Your task to perform on an android device: toggle notification dots Image 0: 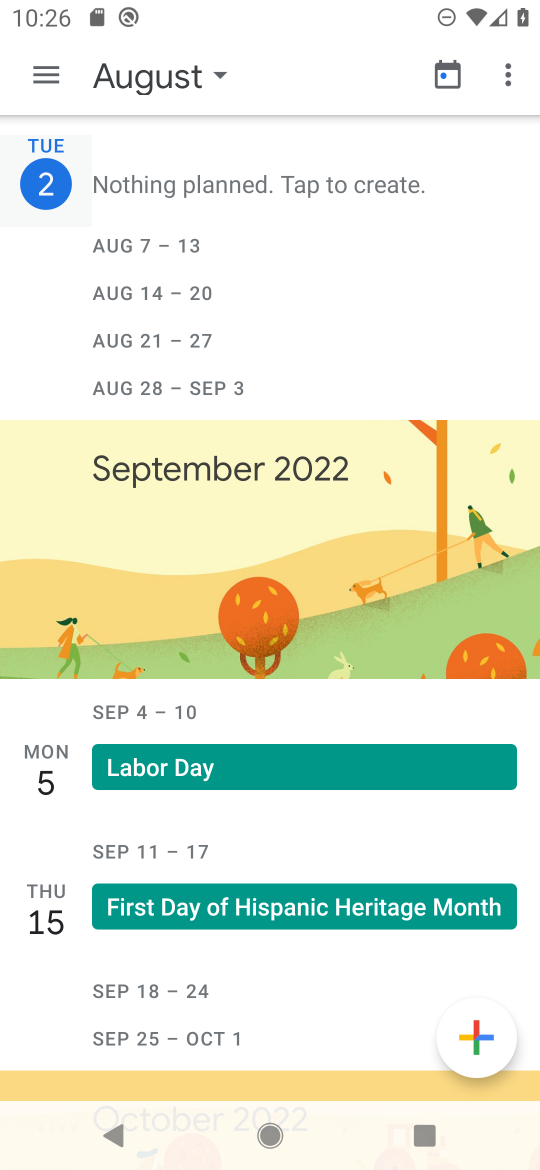
Step 0: press home button
Your task to perform on an android device: toggle notification dots Image 1: 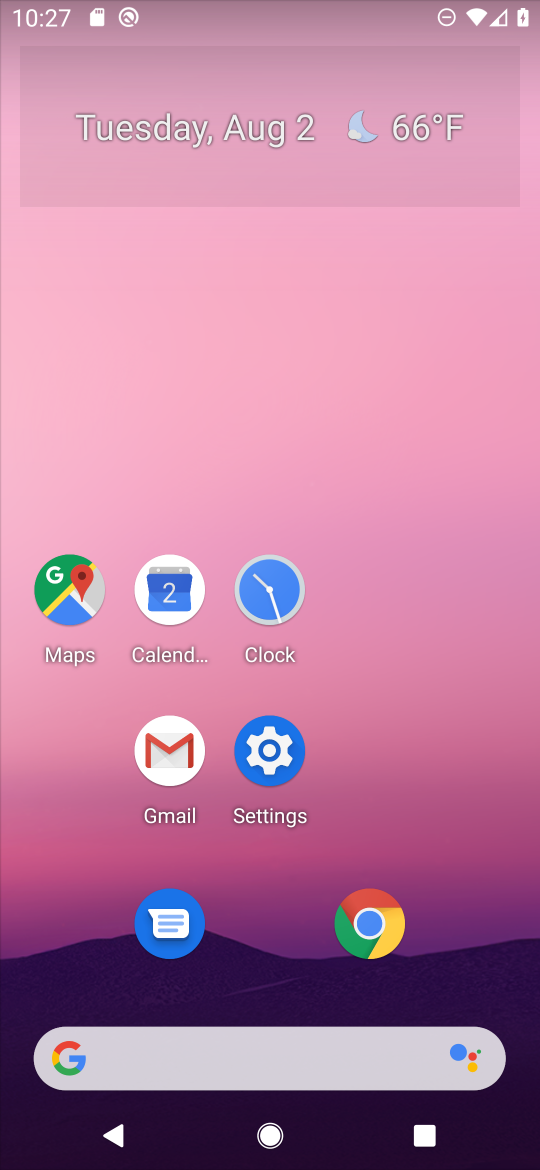
Step 1: click (273, 740)
Your task to perform on an android device: toggle notification dots Image 2: 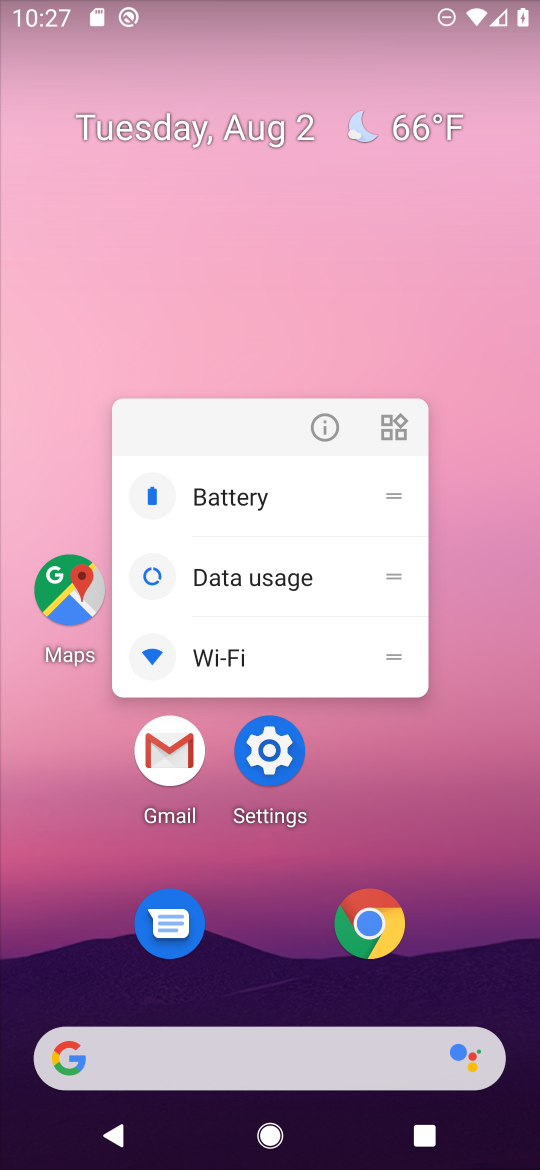
Step 2: click (273, 740)
Your task to perform on an android device: toggle notification dots Image 3: 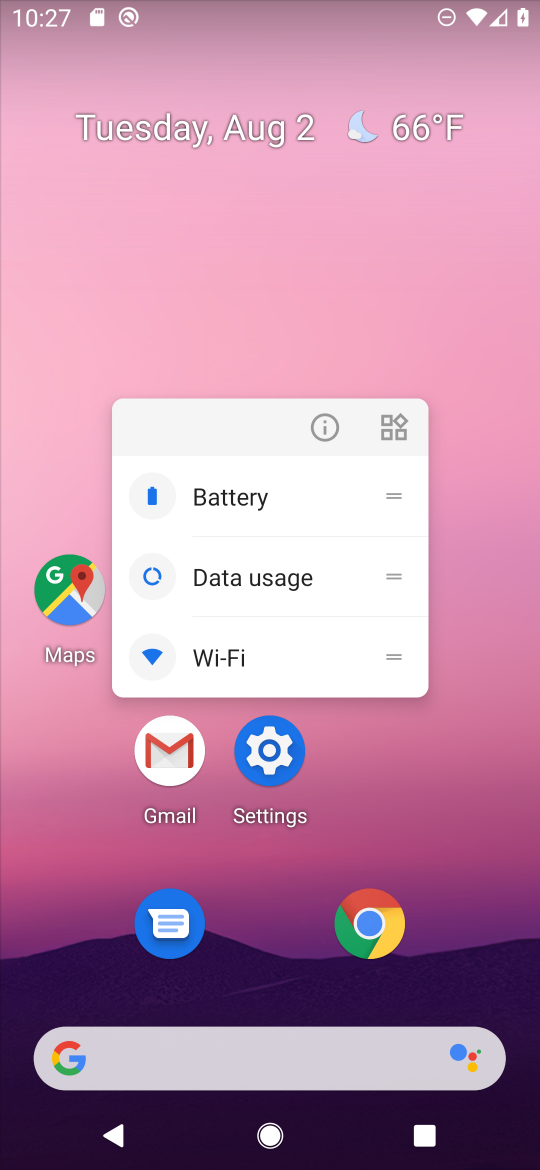
Step 3: click (273, 740)
Your task to perform on an android device: toggle notification dots Image 4: 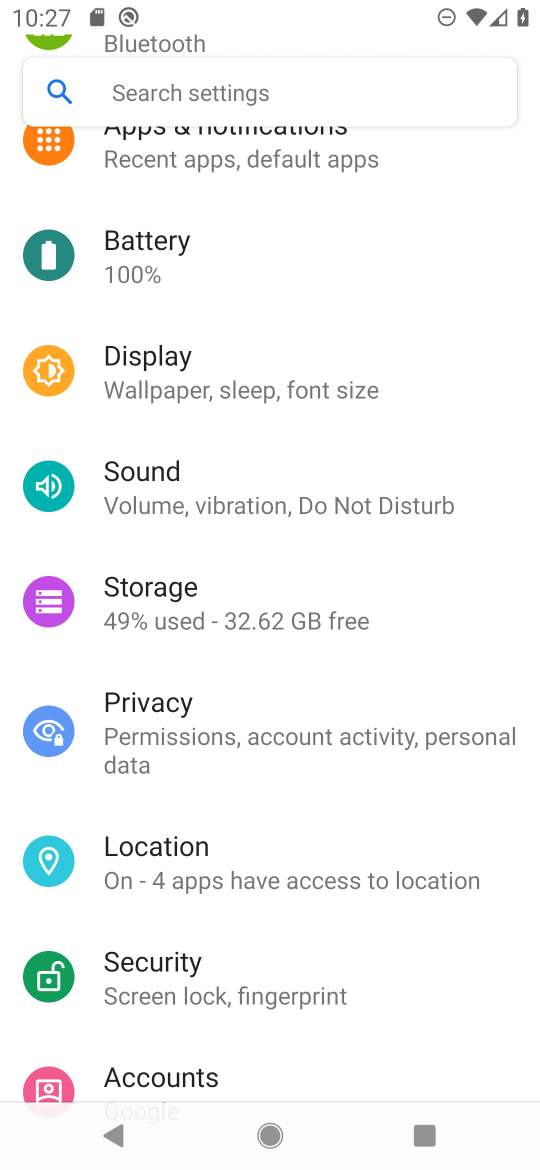
Step 4: click (283, 153)
Your task to perform on an android device: toggle notification dots Image 5: 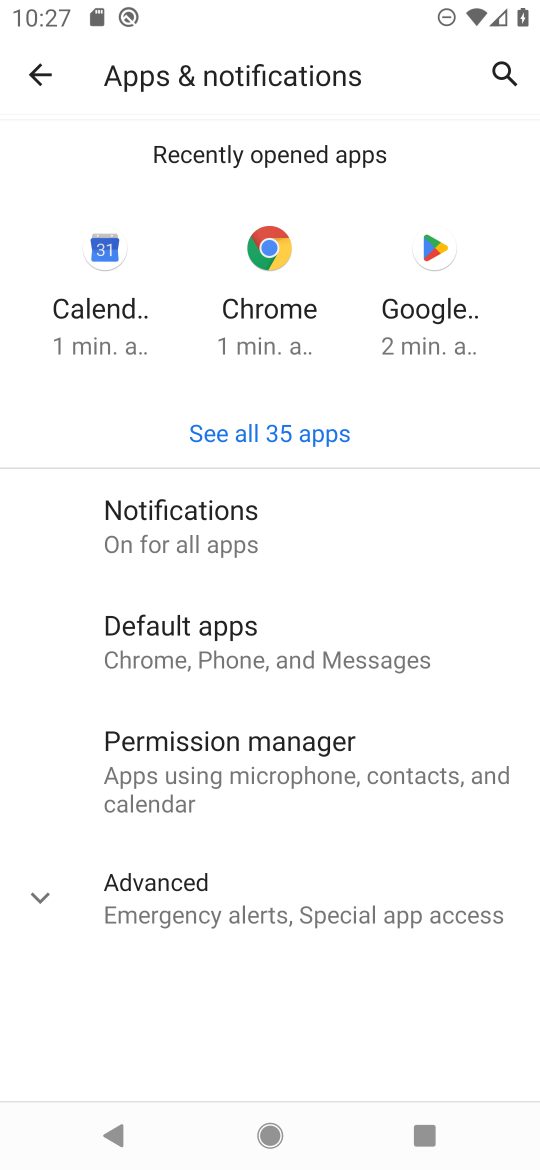
Step 5: click (174, 512)
Your task to perform on an android device: toggle notification dots Image 6: 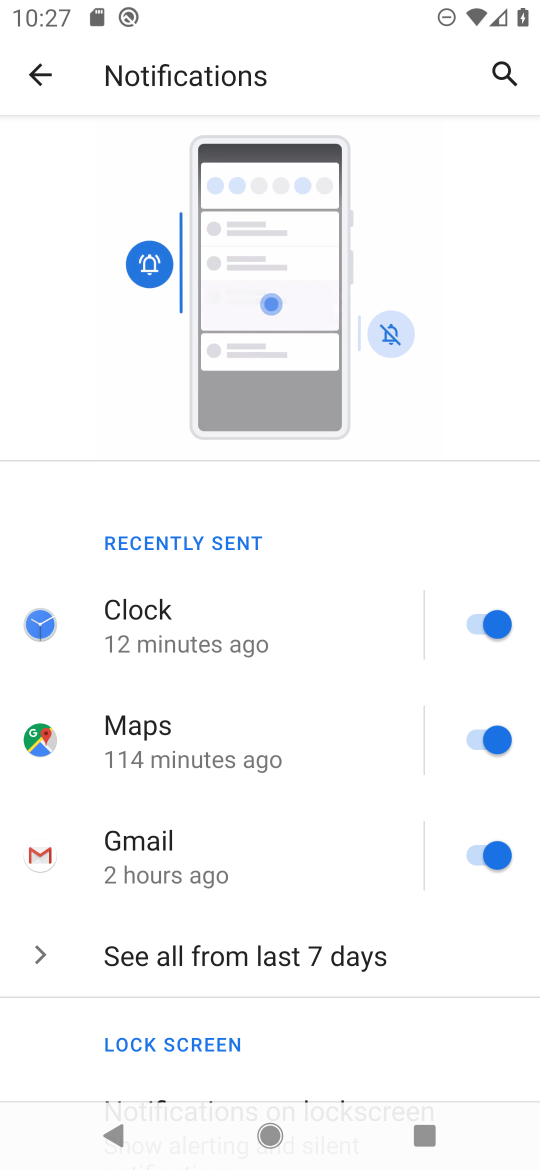
Step 6: drag from (301, 1034) to (272, 475)
Your task to perform on an android device: toggle notification dots Image 7: 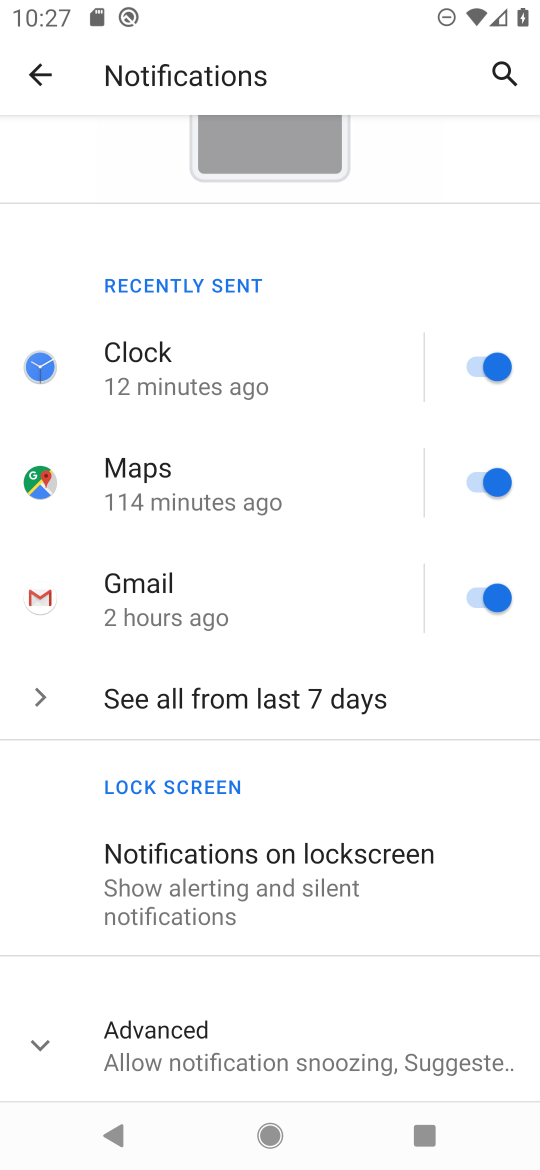
Step 7: click (42, 1035)
Your task to perform on an android device: toggle notification dots Image 8: 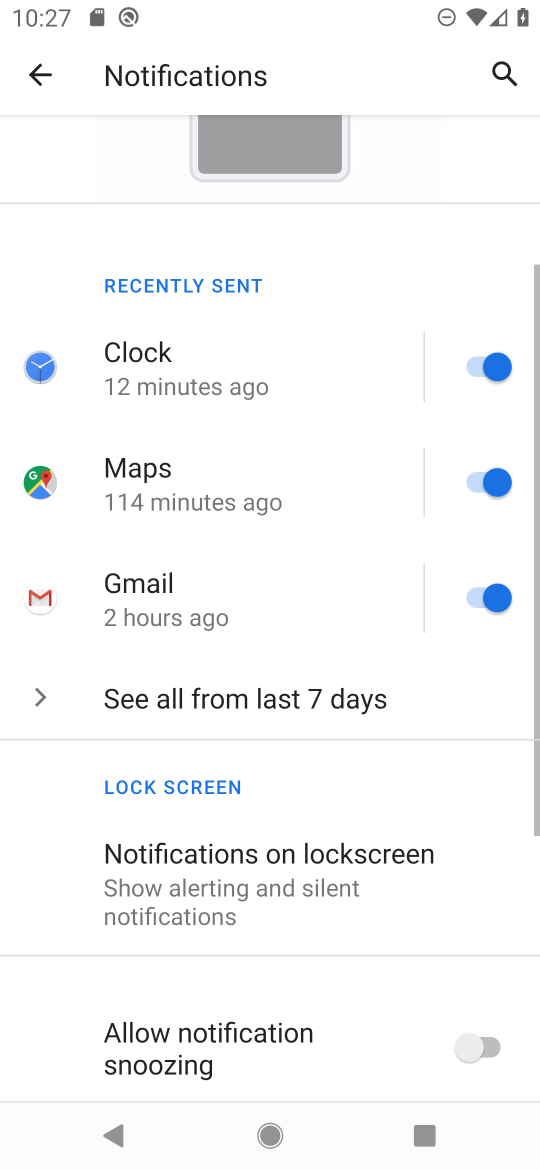
Step 8: drag from (359, 1037) to (387, 524)
Your task to perform on an android device: toggle notification dots Image 9: 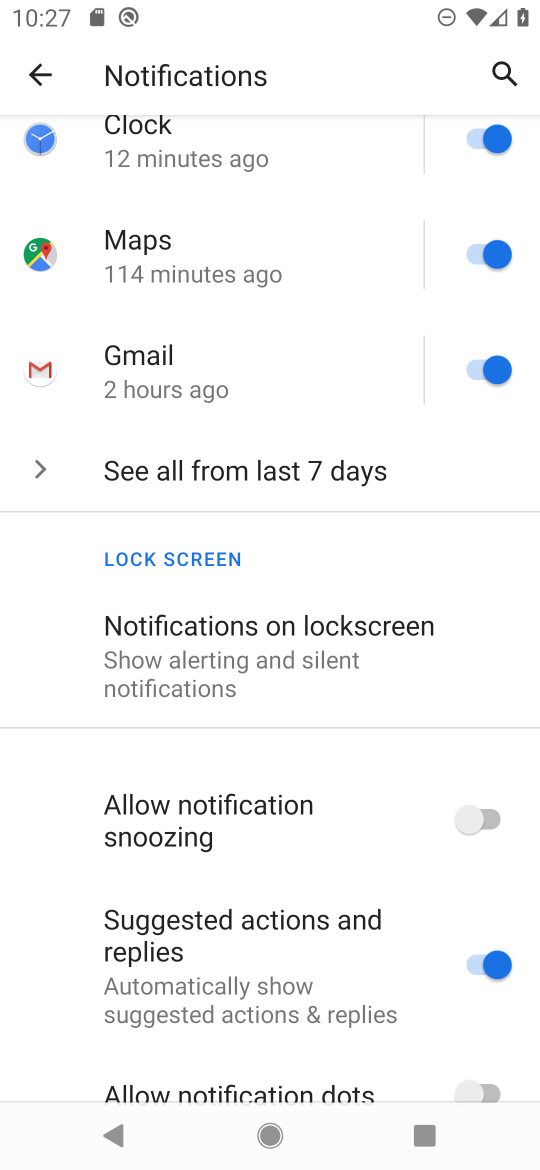
Step 9: drag from (395, 951) to (414, 720)
Your task to perform on an android device: toggle notification dots Image 10: 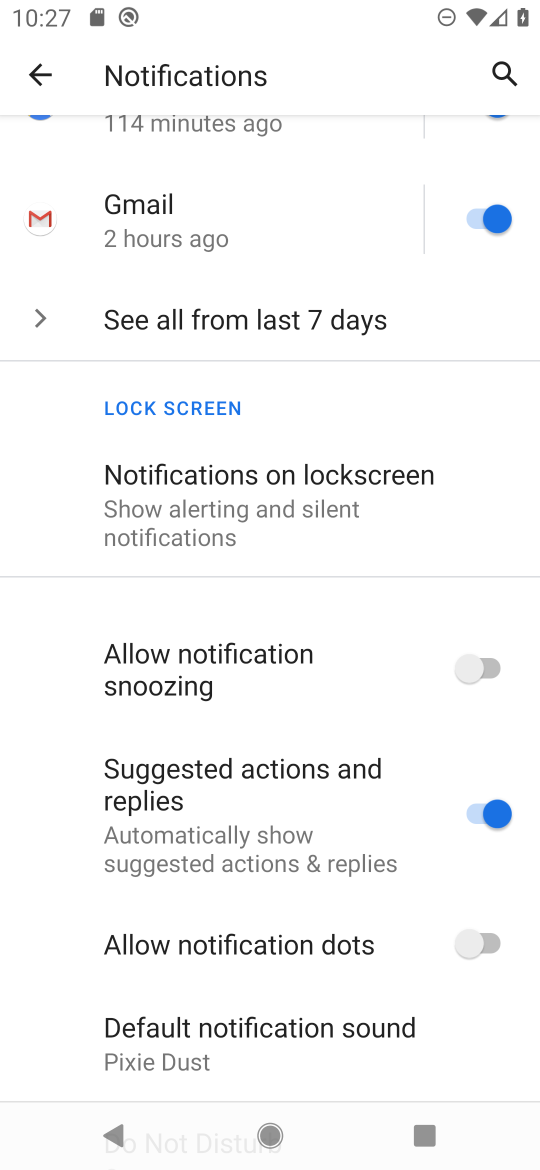
Step 10: click (488, 945)
Your task to perform on an android device: toggle notification dots Image 11: 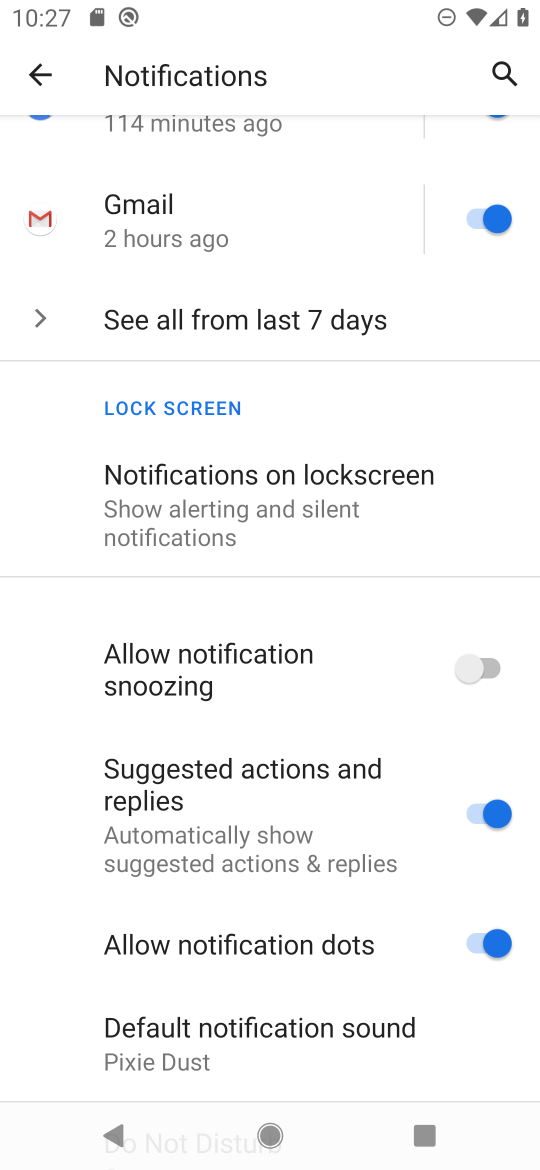
Step 11: task complete